Your task to perform on an android device: turn on airplane mode Image 0: 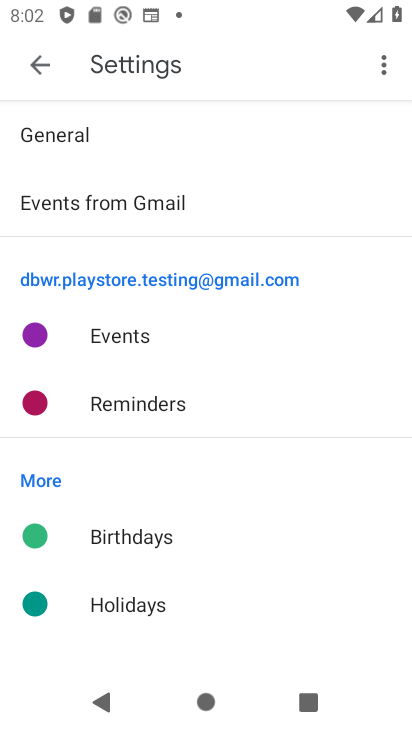
Step 0: press home button
Your task to perform on an android device: turn on airplane mode Image 1: 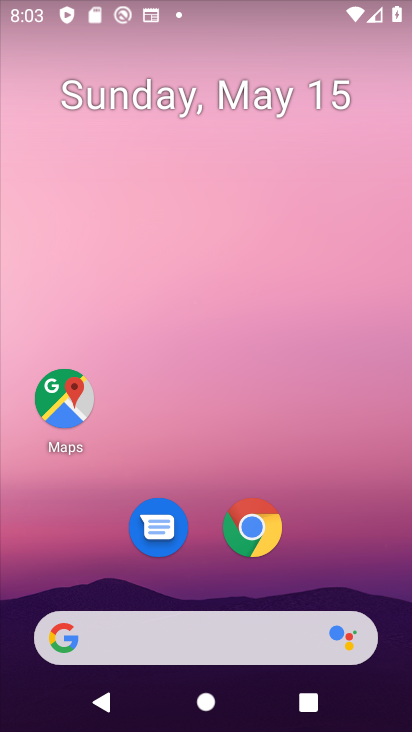
Step 1: drag from (197, 572) to (188, 170)
Your task to perform on an android device: turn on airplane mode Image 2: 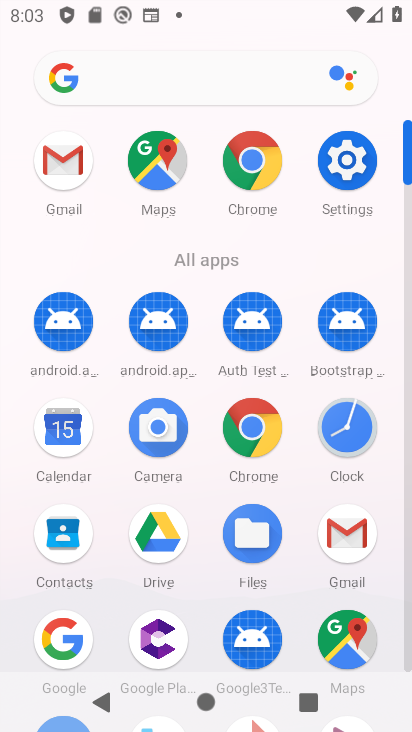
Step 2: click (344, 150)
Your task to perform on an android device: turn on airplane mode Image 3: 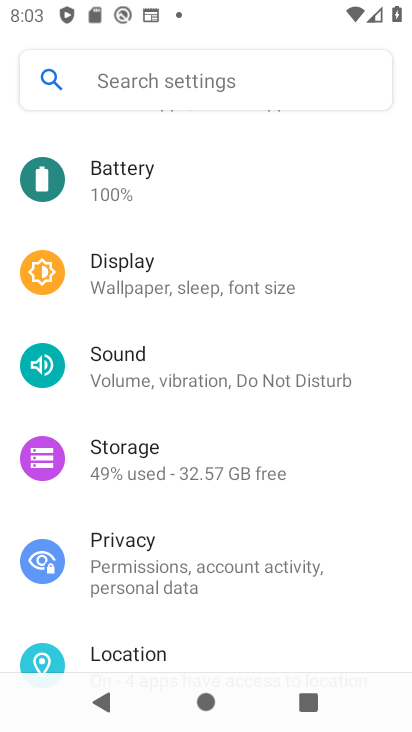
Step 3: drag from (207, 564) to (197, 496)
Your task to perform on an android device: turn on airplane mode Image 4: 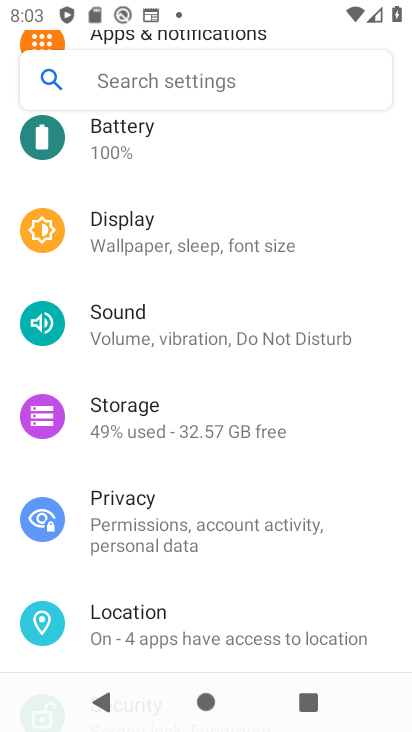
Step 4: drag from (140, 146) to (191, 409)
Your task to perform on an android device: turn on airplane mode Image 5: 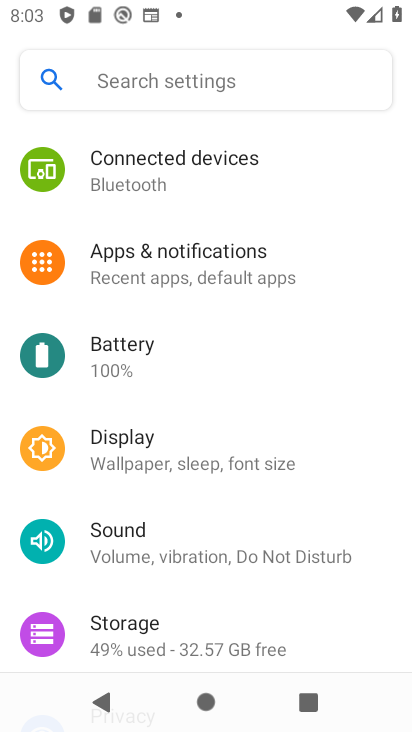
Step 5: drag from (208, 206) to (249, 566)
Your task to perform on an android device: turn on airplane mode Image 6: 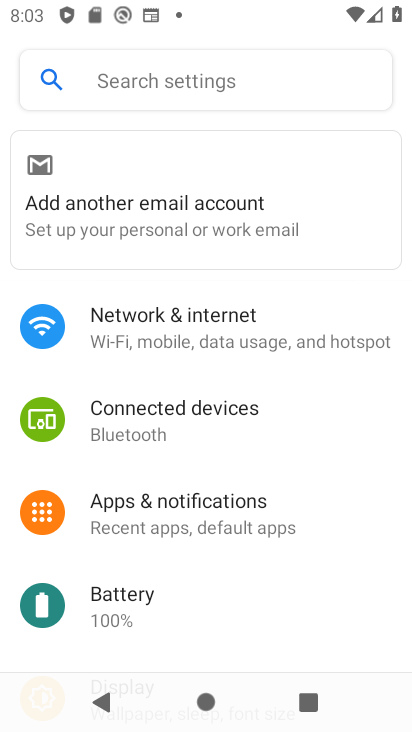
Step 6: click (190, 310)
Your task to perform on an android device: turn on airplane mode Image 7: 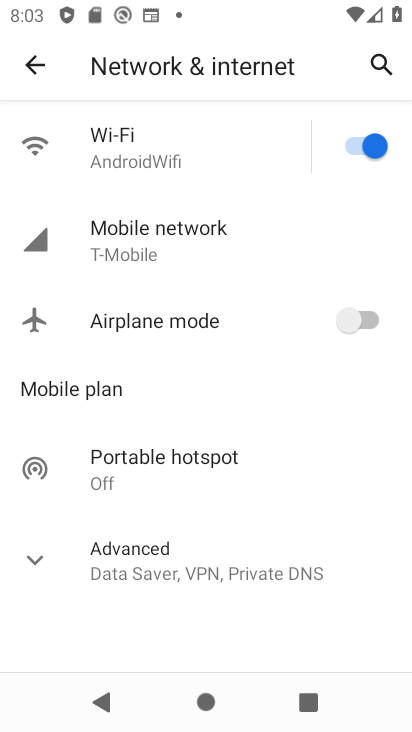
Step 7: click (362, 317)
Your task to perform on an android device: turn on airplane mode Image 8: 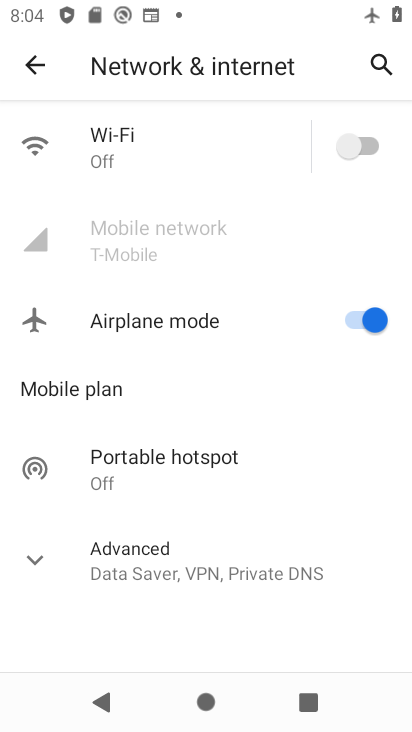
Step 8: task complete